Your task to perform on an android device: Go to location settings Image 0: 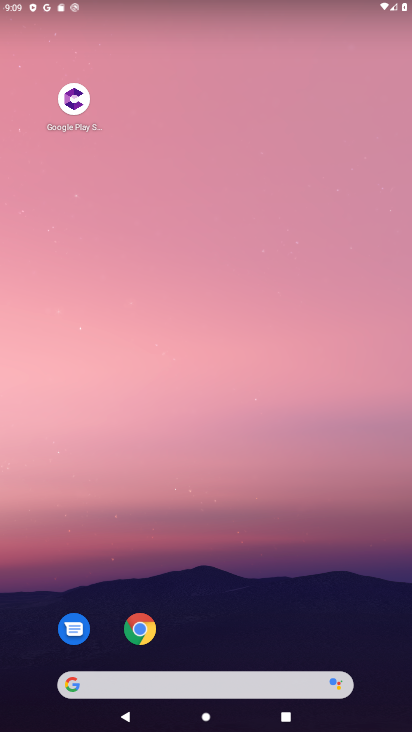
Step 0: drag from (223, 636) to (120, 272)
Your task to perform on an android device: Go to location settings Image 1: 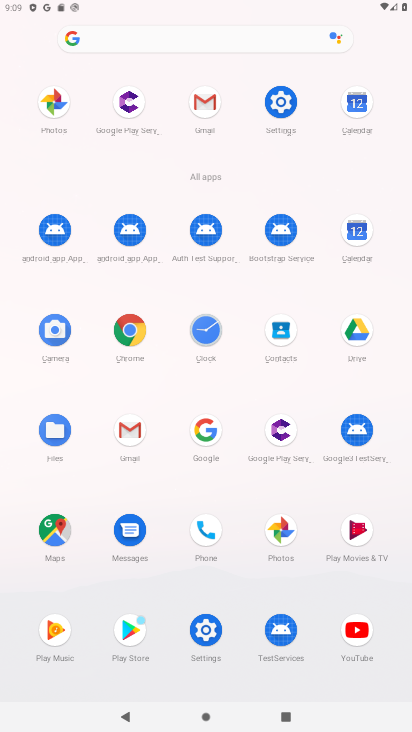
Step 1: click (285, 109)
Your task to perform on an android device: Go to location settings Image 2: 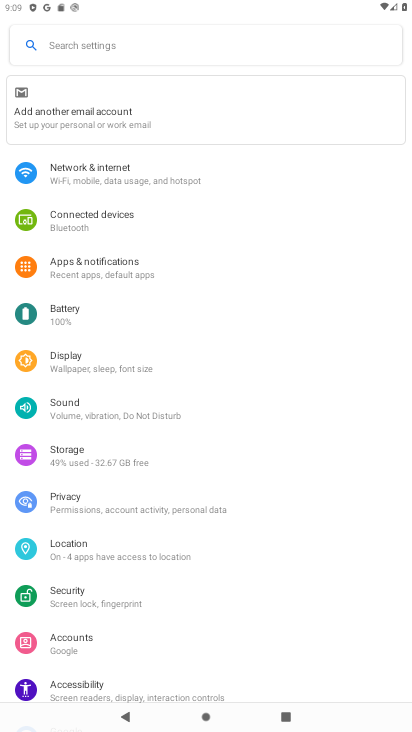
Step 2: click (156, 566)
Your task to perform on an android device: Go to location settings Image 3: 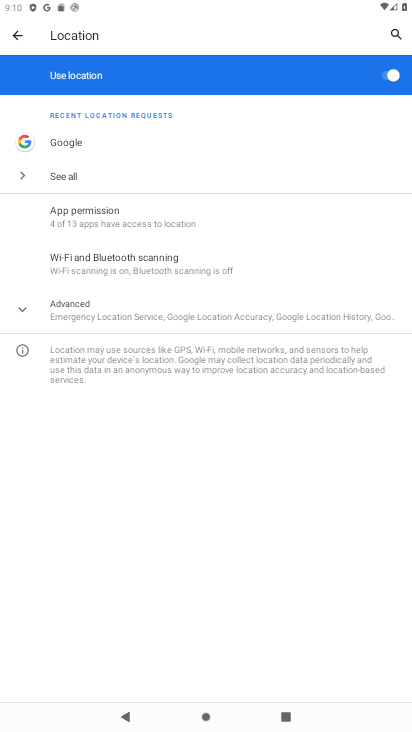
Step 3: task complete